Your task to perform on an android device: Open settings Image 0: 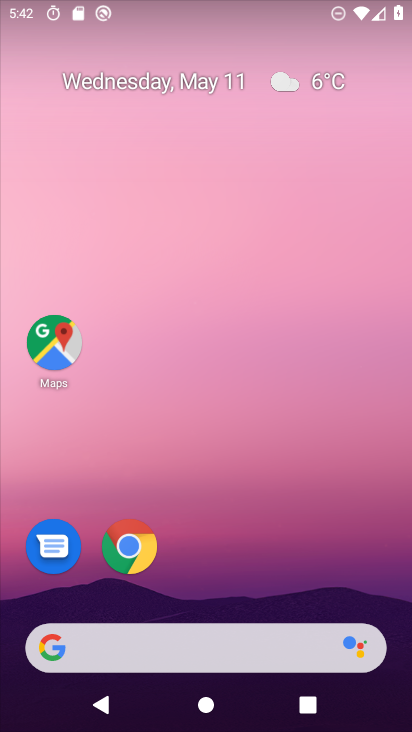
Step 0: drag from (212, 599) to (214, 200)
Your task to perform on an android device: Open settings Image 1: 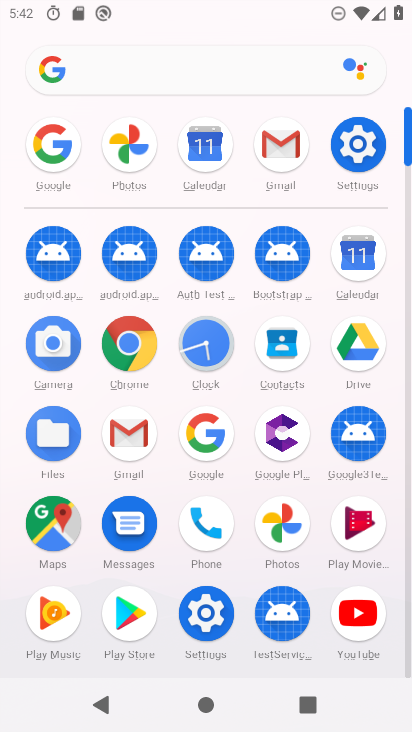
Step 1: click (370, 143)
Your task to perform on an android device: Open settings Image 2: 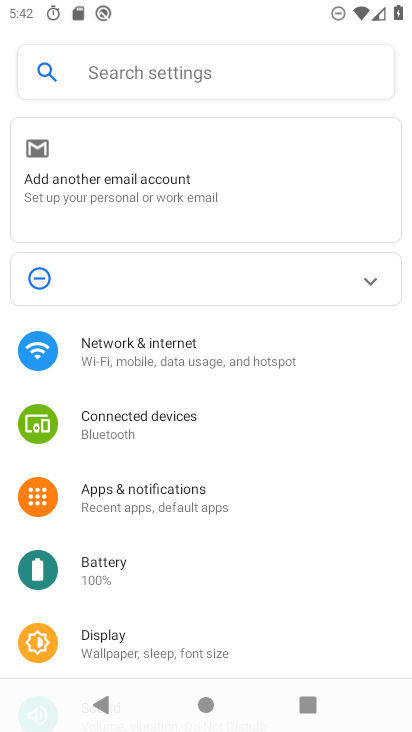
Step 2: task complete